Your task to perform on an android device: open app "Venmo" (install if not already installed), go to login, and select forgot password Image 0: 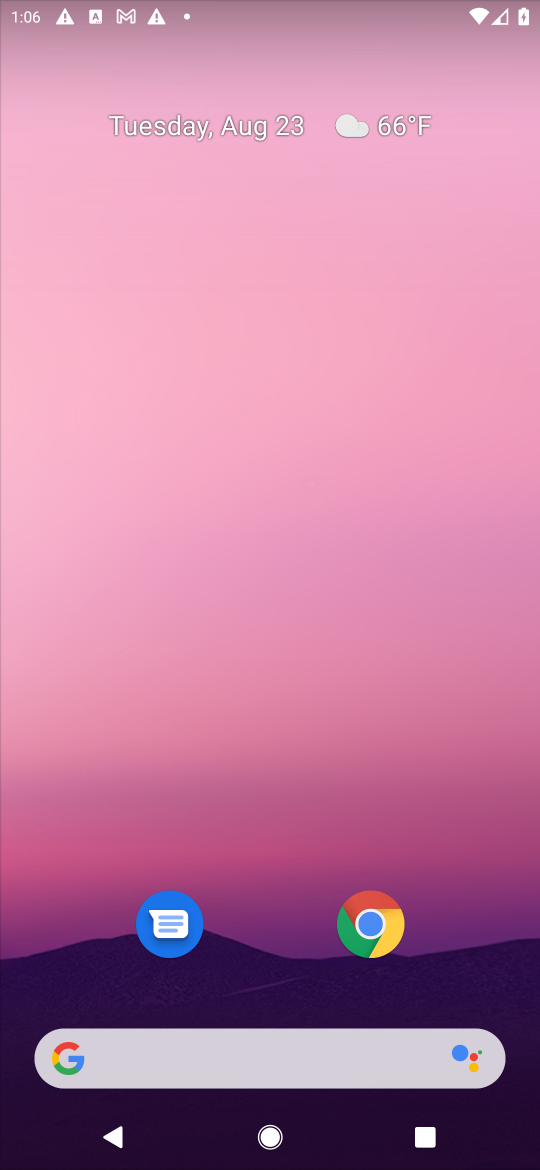
Step 0: drag from (505, 653) to (510, 161)
Your task to perform on an android device: open app "Venmo" (install if not already installed), go to login, and select forgot password Image 1: 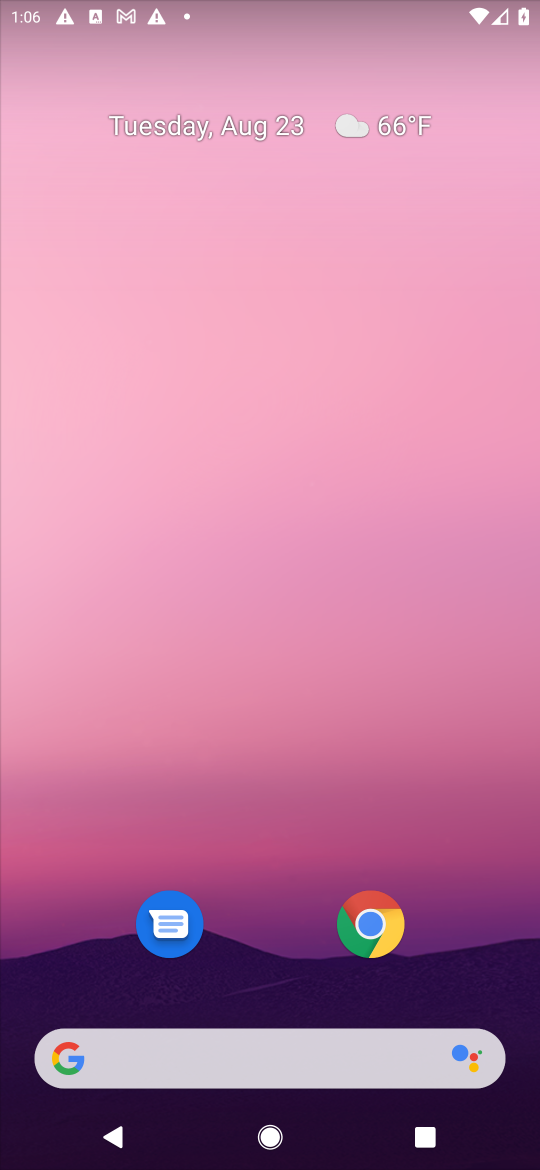
Step 1: drag from (457, 967) to (408, 123)
Your task to perform on an android device: open app "Venmo" (install if not already installed), go to login, and select forgot password Image 2: 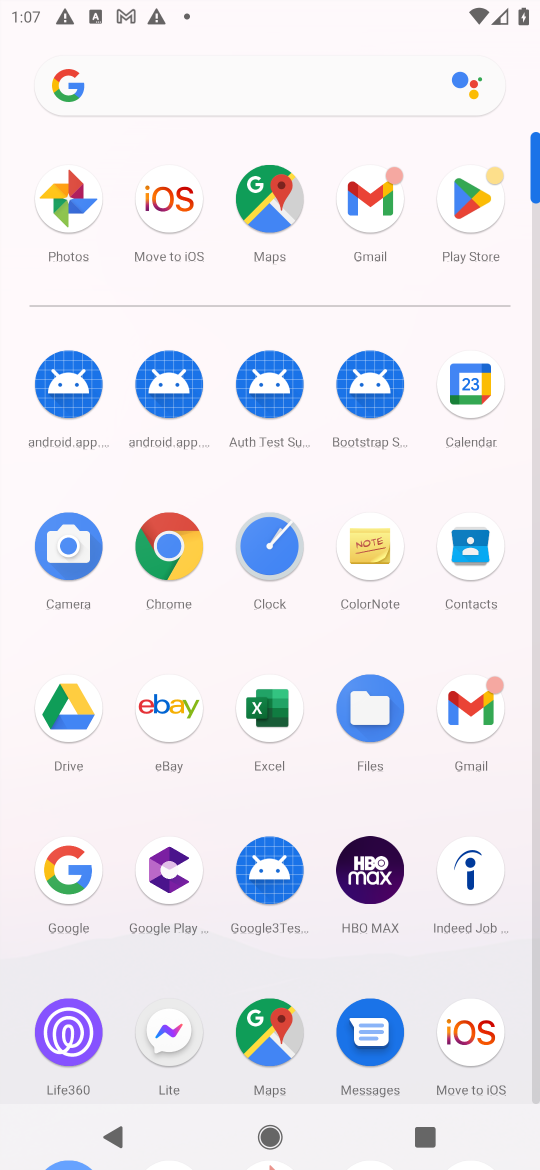
Step 2: click (471, 208)
Your task to perform on an android device: open app "Venmo" (install if not already installed), go to login, and select forgot password Image 3: 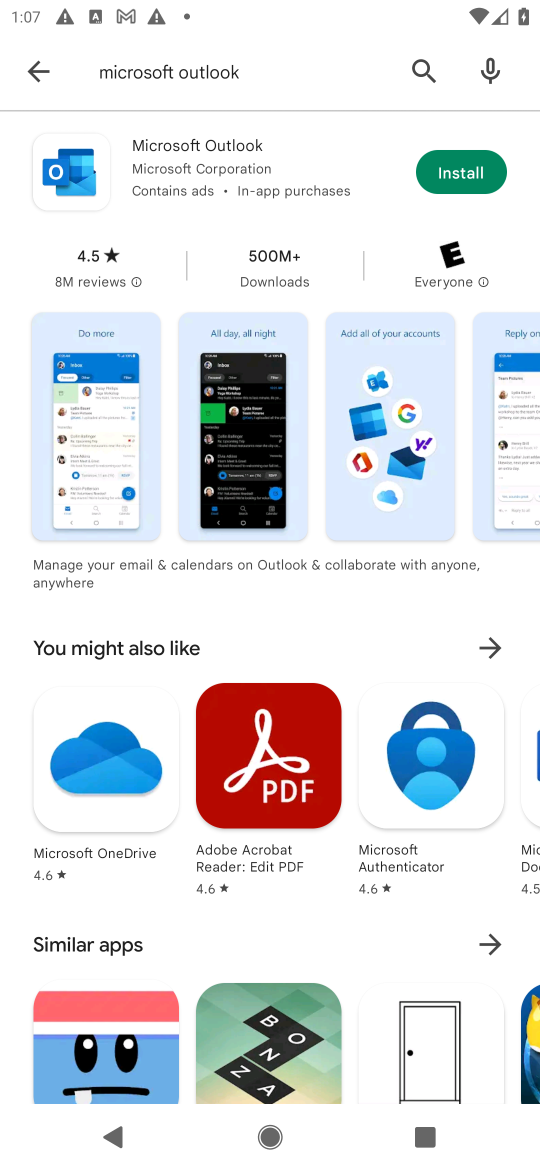
Step 3: press back button
Your task to perform on an android device: open app "Venmo" (install if not already installed), go to login, and select forgot password Image 4: 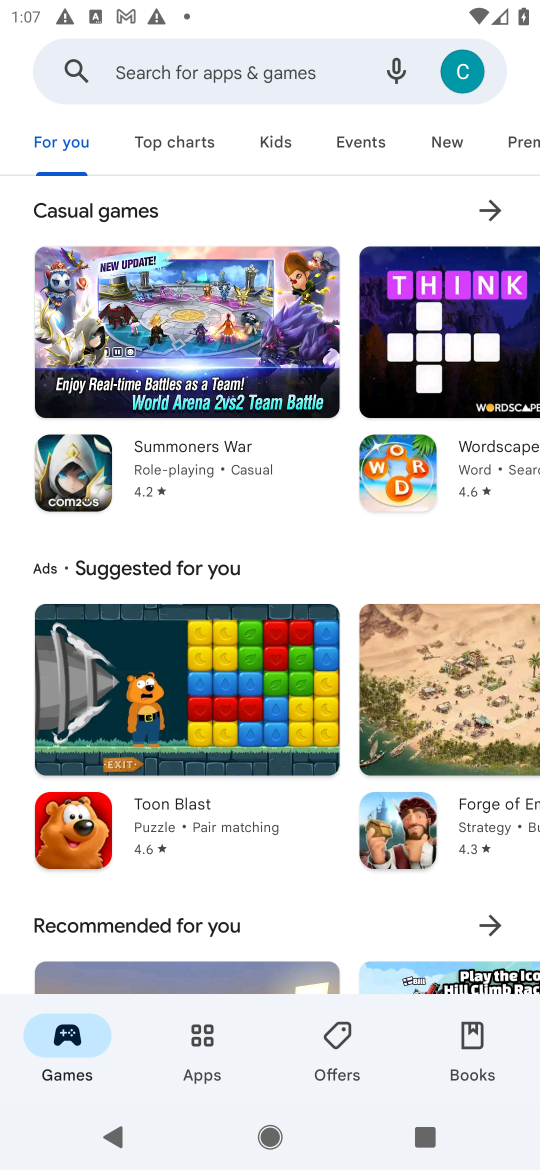
Step 4: click (260, 66)
Your task to perform on an android device: open app "Venmo" (install if not already installed), go to login, and select forgot password Image 5: 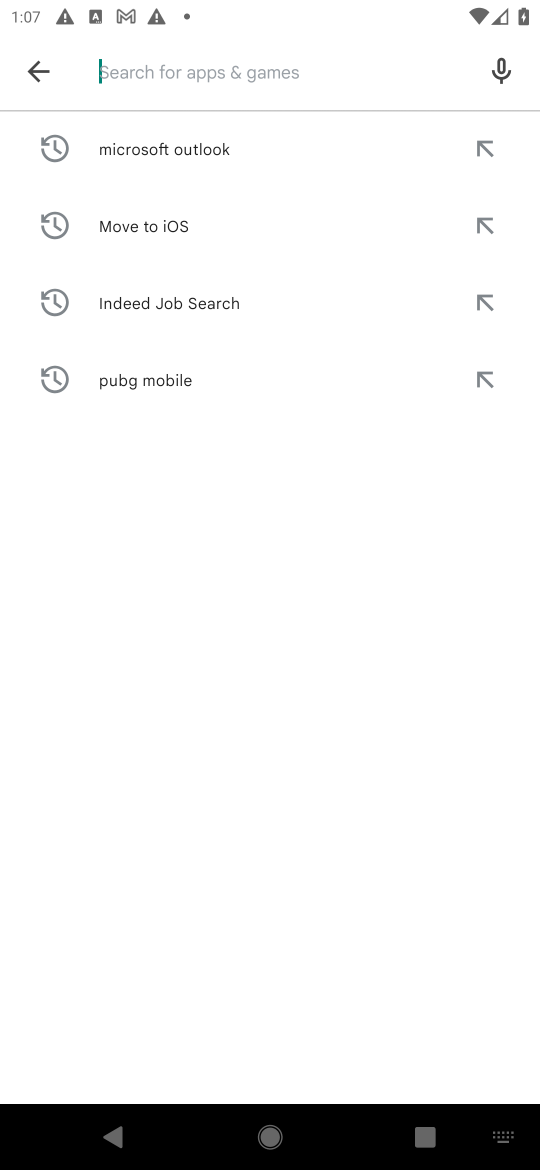
Step 5: press enter
Your task to perform on an android device: open app "Venmo" (install if not already installed), go to login, and select forgot password Image 6: 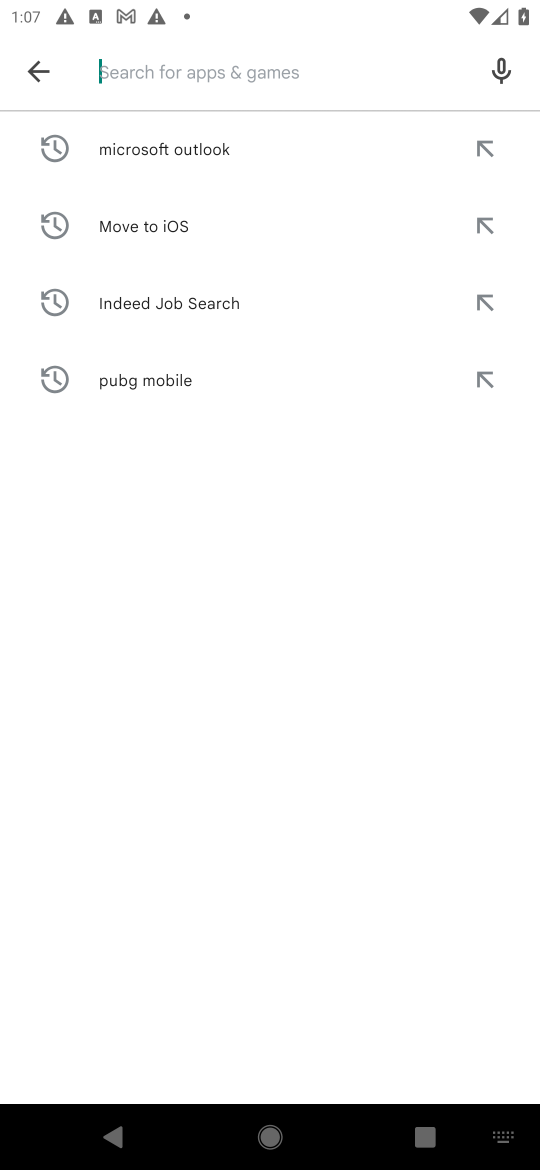
Step 6: type "Venmo"
Your task to perform on an android device: open app "Venmo" (install if not already installed), go to login, and select forgot password Image 7: 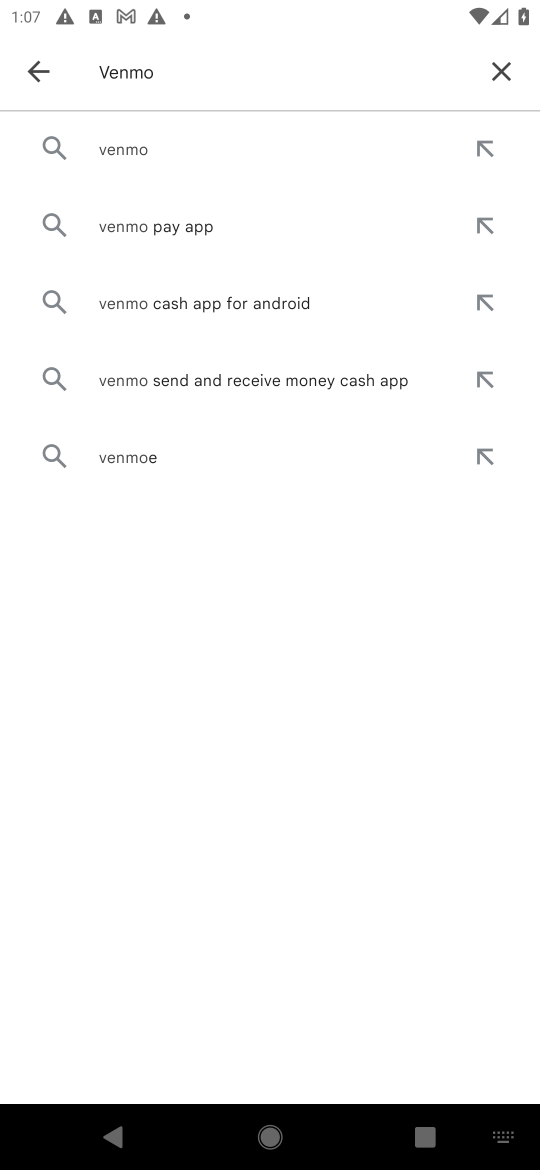
Step 7: click (127, 147)
Your task to perform on an android device: open app "Venmo" (install if not already installed), go to login, and select forgot password Image 8: 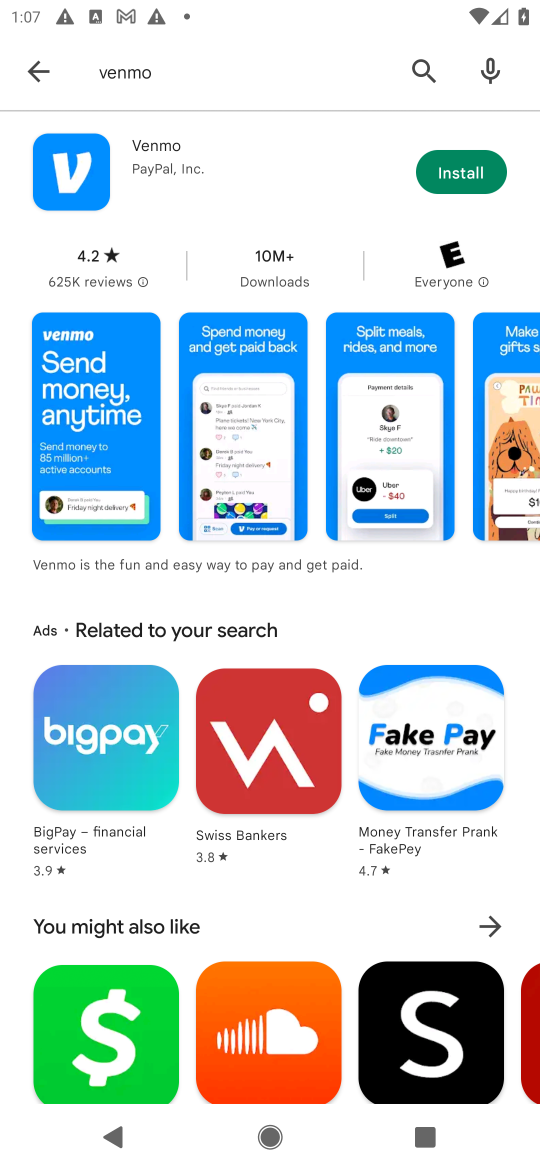
Step 8: click (457, 166)
Your task to perform on an android device: open app "Venmo" (install if not already installed), go to login, and select forgot password Image 9: 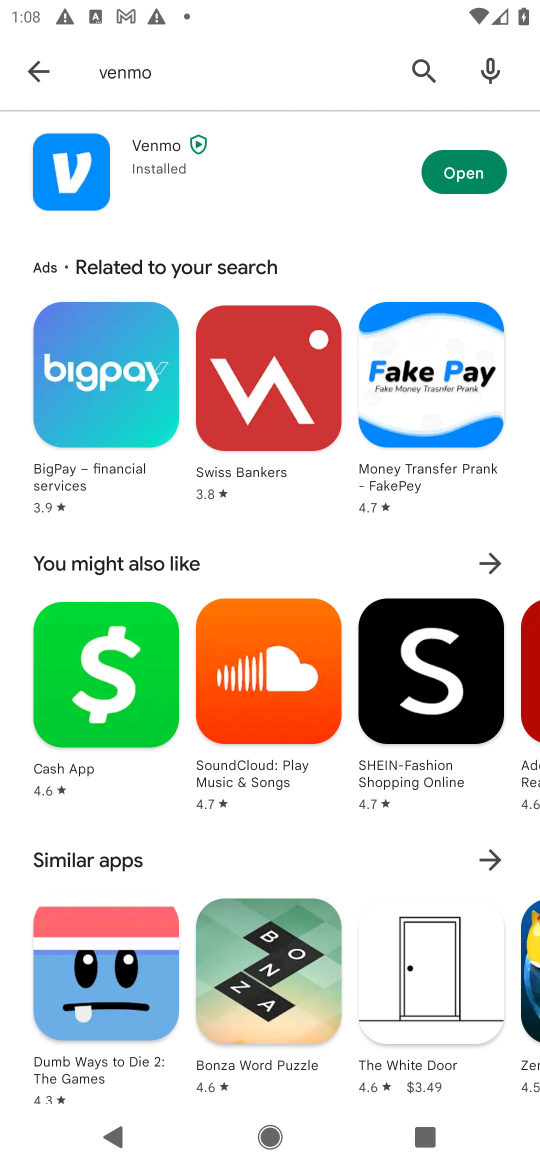
Step 9: click (458, 166)
Your task to perform on an android device: open app "Venmo" (install if not already installed), go to login, and select forgot password Image 10: 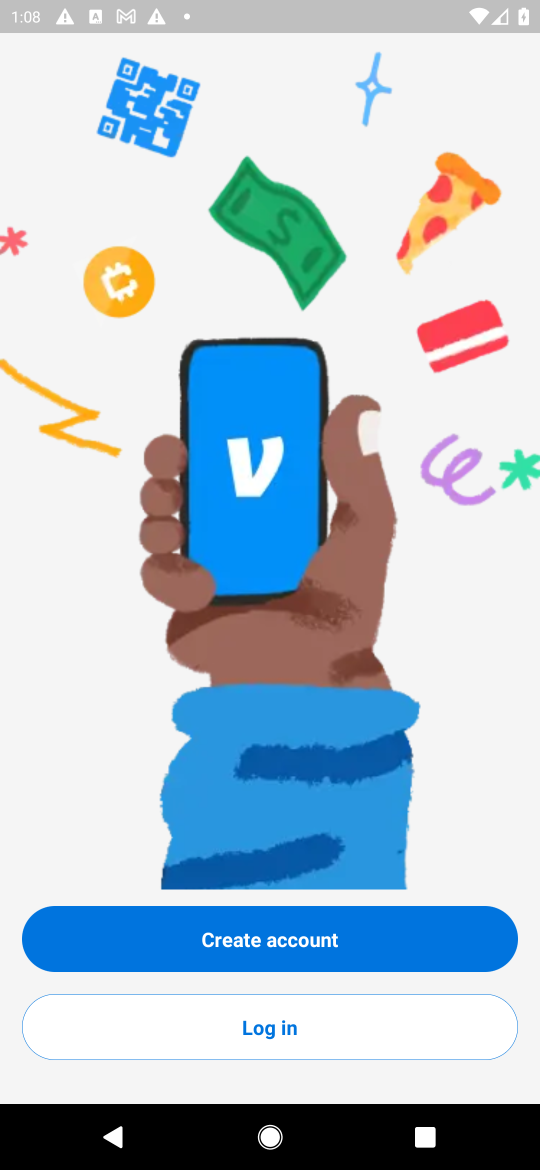
Step 10: click (299, 1027)
Your task to perform on an android device: open app "Venmo" (install if not already installed), go to login, and select forgot password Image 11: 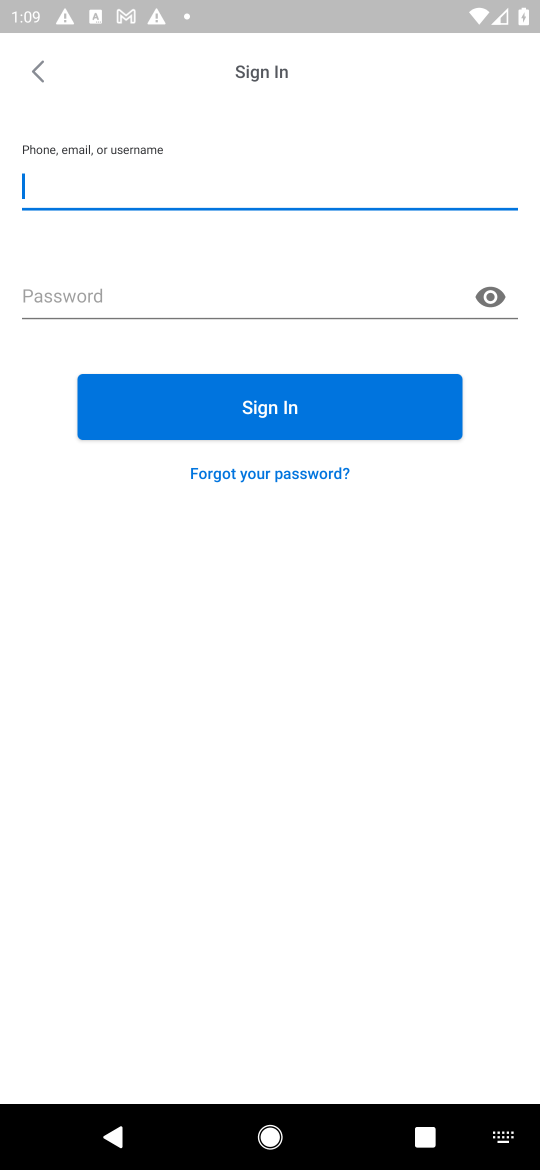
Step 11: click (263, 474)
Your task to perform on an android device: open app "Venmo" (install if not already installed), go to login, and select forgot password Image 12: 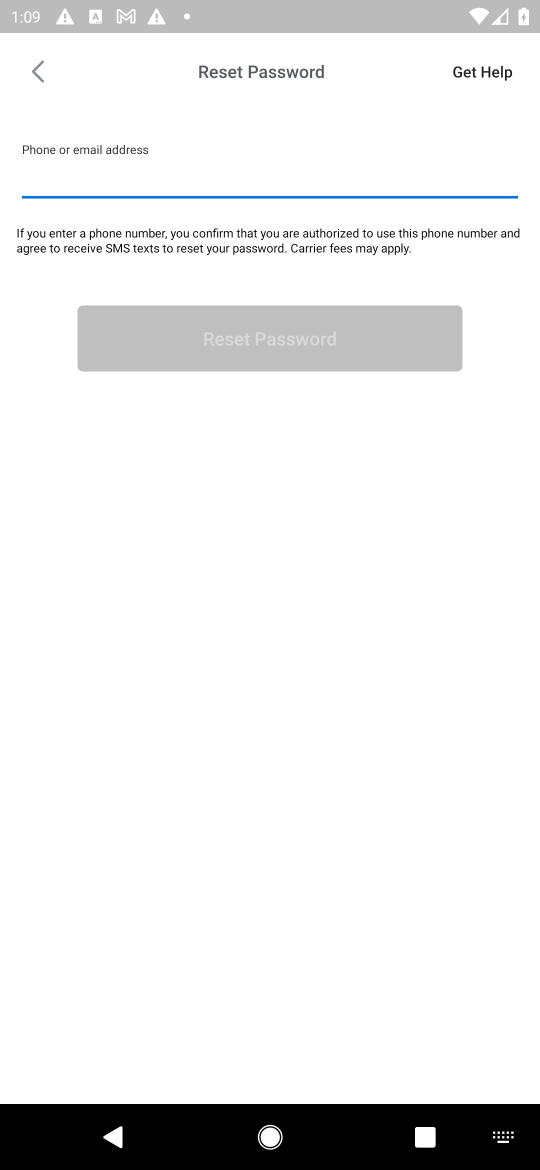
Step 12: task complete